Your task to perform on an android device: empty trash in the gmail app Image 0: 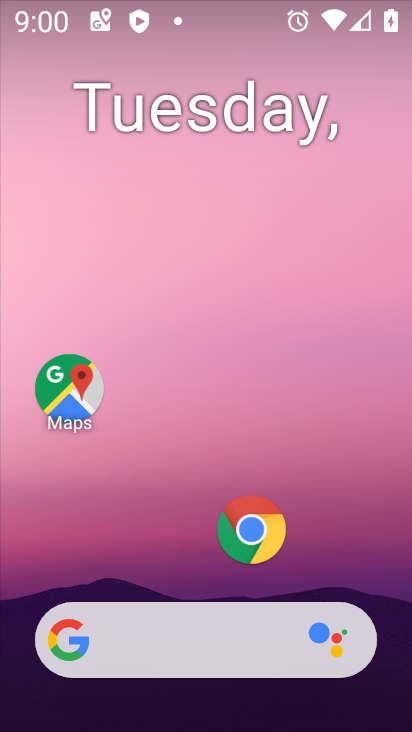
Step 0: press home button
Your task to perform on an android device: empty trash in the gmail app Image 1: 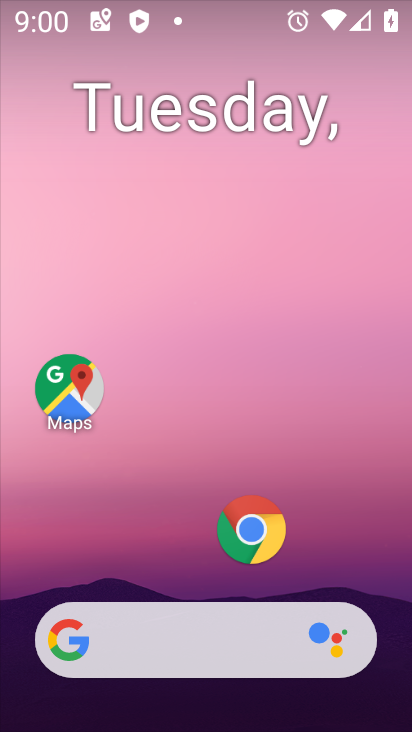
Step 1: drag from (191, 579) to (195, 112)
Your task to perform on an android device: empty trash in the gmail app Image 2: 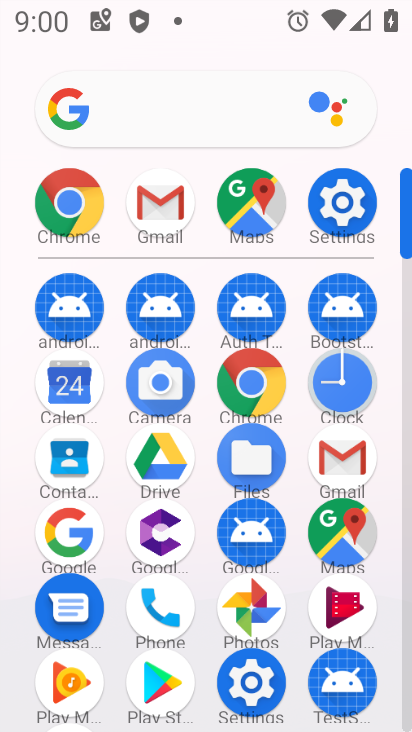
Step 2: click (158, 199)
Your task to perform on an android device: empty trash in the gmail app Image 3: 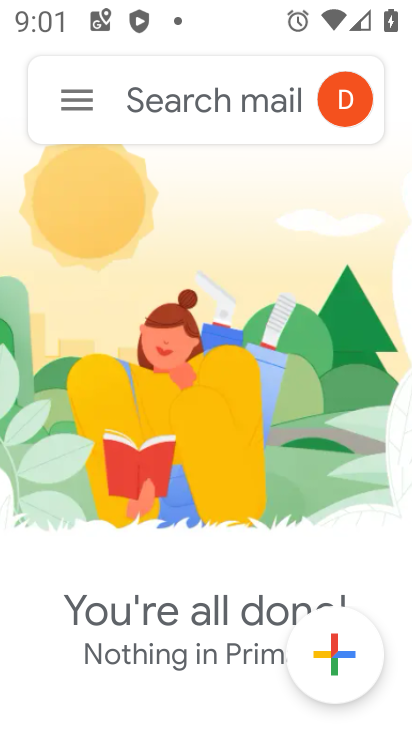
Step 3: click (73, 97)
Your task to perform on an android device: empty trash in the gmail app Image 4: 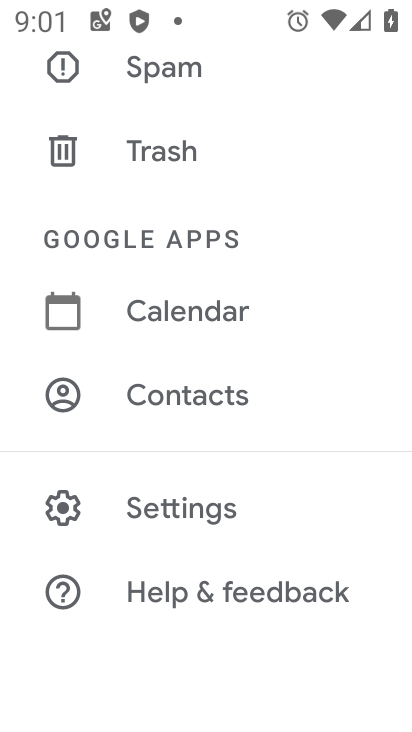
Step 4: click (102, 149)
Your task to perform on an android device: empty trash in the gmail app Image 5: 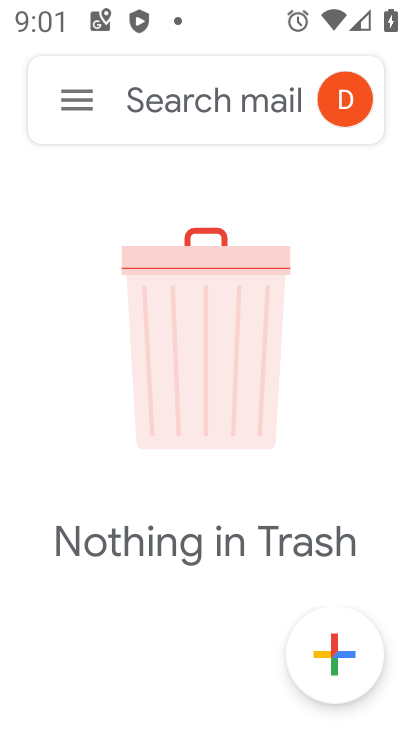
Step 5: task complete